Your task to perform on an android device: Go to sound settings Image 0: 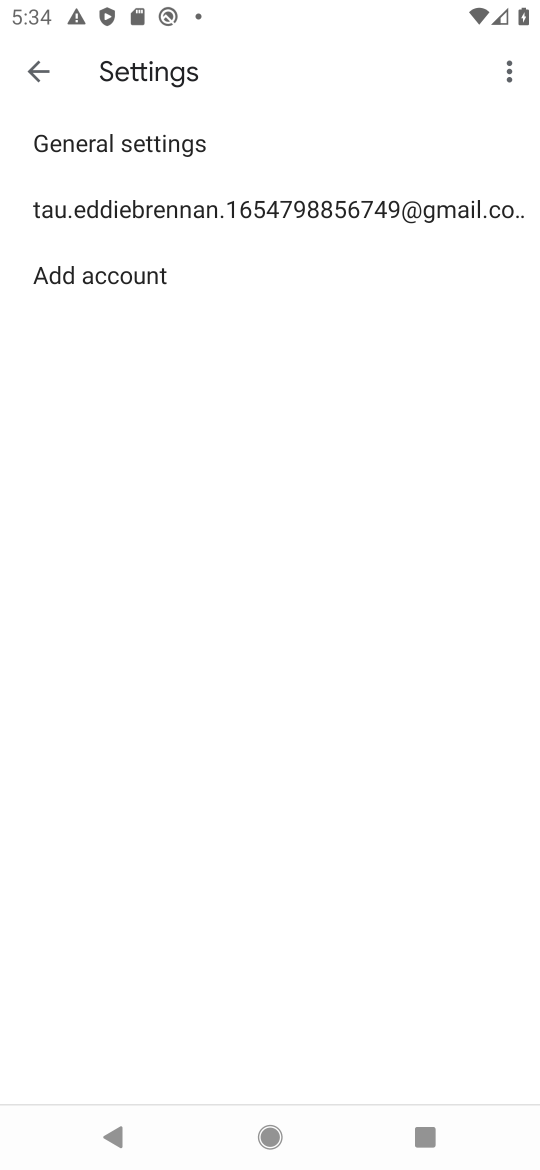
Step 0: press home button
Your task to perform on an android device: Go to sound settings Image 1: 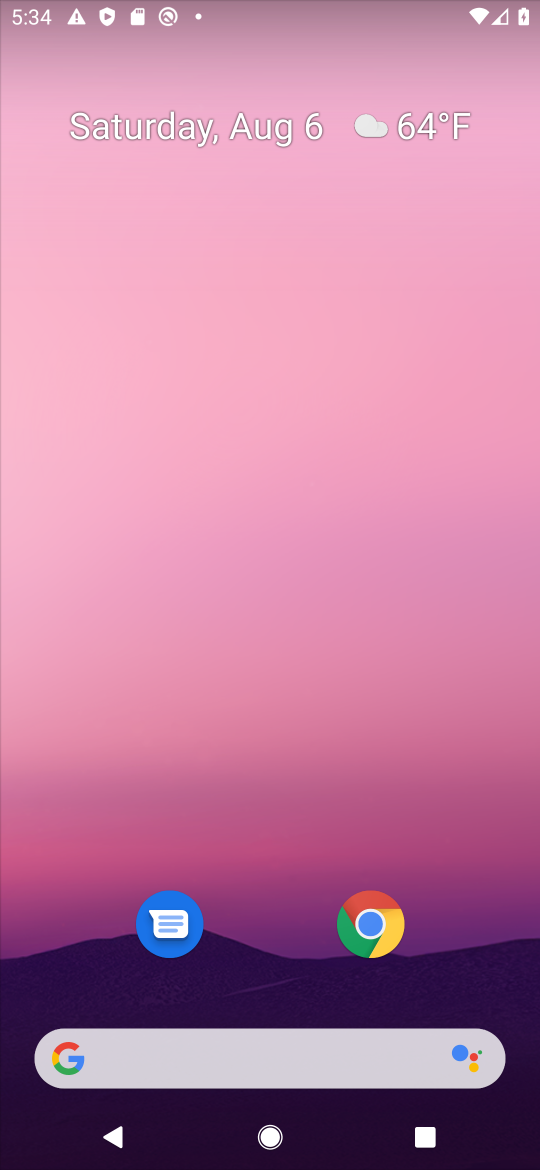
Step 1: drag from (115, 1132) to (271, 609)
Your task to perform on an android device: Go to sound settings Image 2: 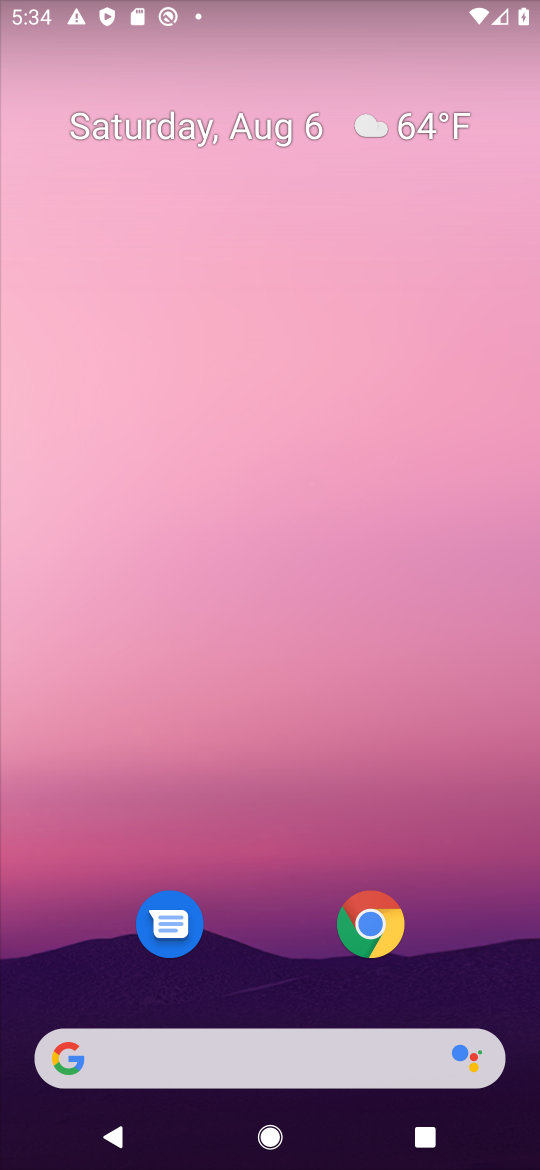
Step 2: drag from (337, 1119) to (319, 51)
Your task to perform on an android device: Go to sound settings Image 3: 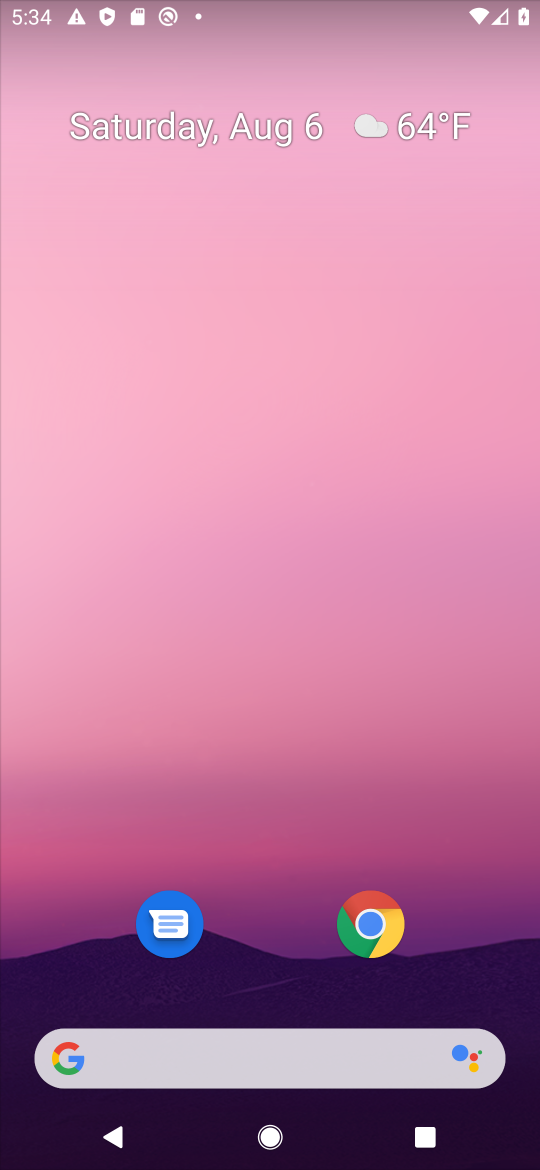
Step 3: drag from (348, 979) to (352, 0)
Your task to perform on an android device: Go to sound settings Image 4: 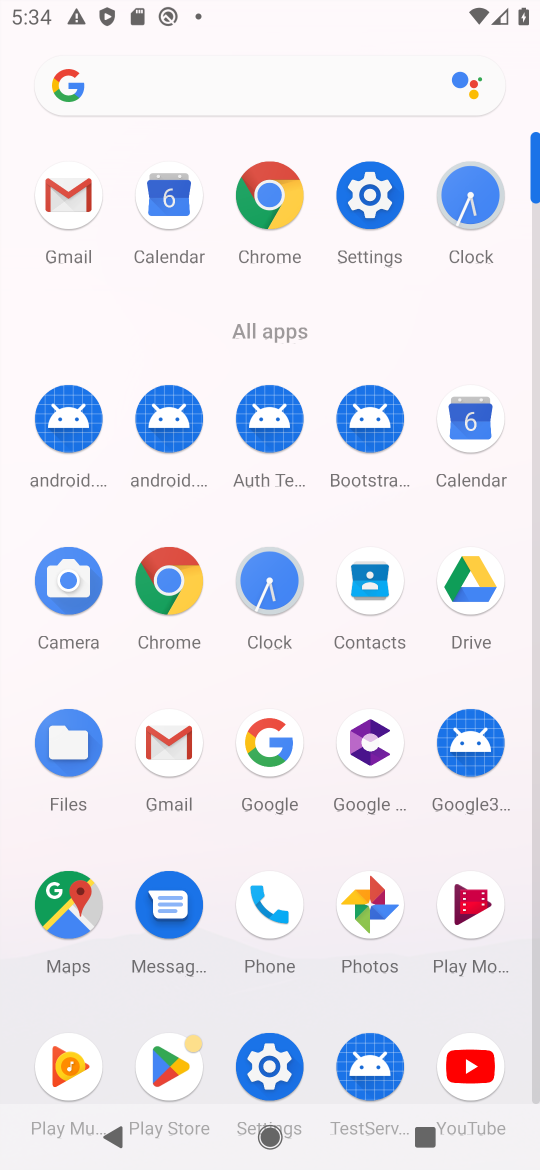
Step 4: click (385, 187)
Your task to perform on an android device: Go to sound settings Image 5: 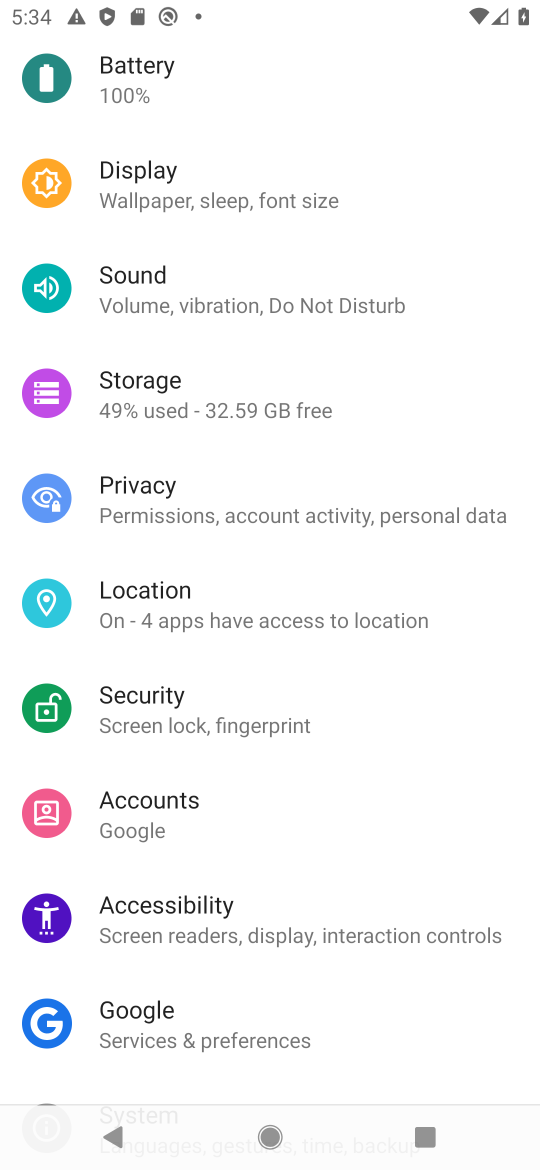
Step 5: click (226, 292)
Your task to perform on an android device: Go to sound settings Image 6: 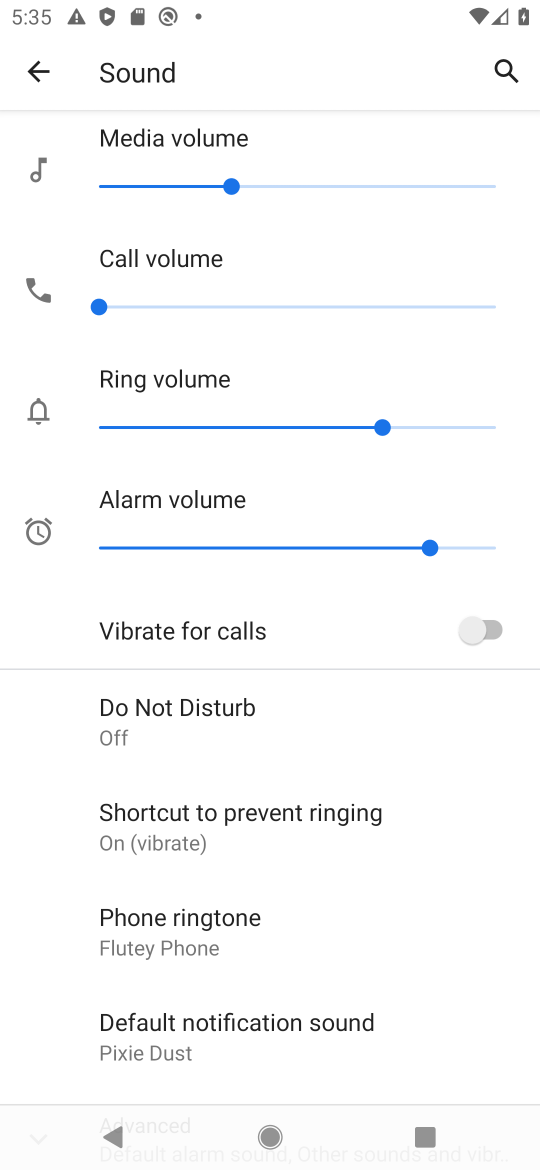
Step 6: task complete